Your task to perform on an android device: open chrome privacy settings Image 0: 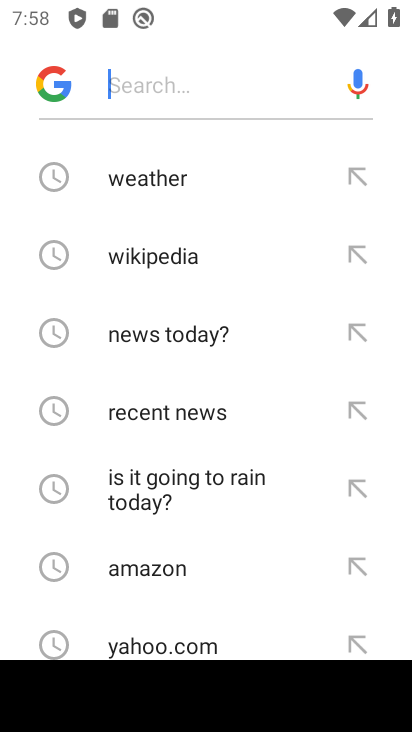
Step 0: press home button
Your task to perform on an android device: open chrome privacy settings Image 1: 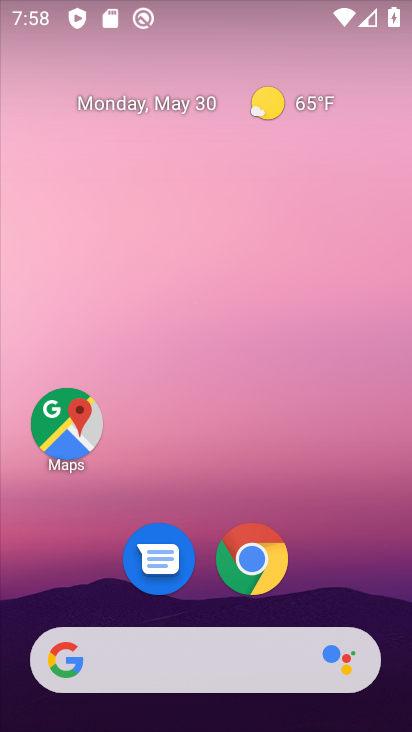
Step 1: click (254, 550)
Your task to perform on an android device: open chrome privacy settings Image 2: 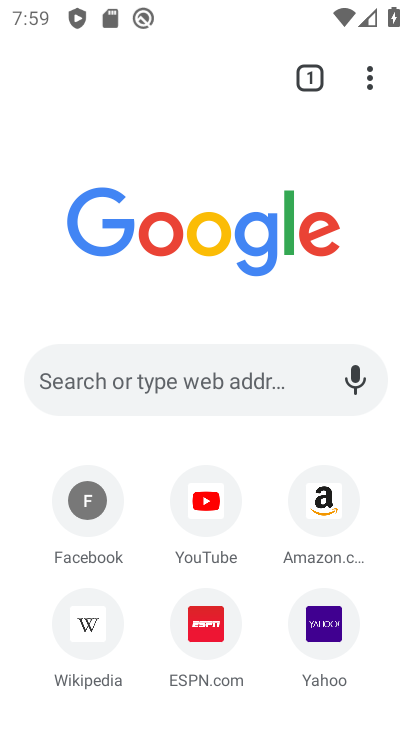
Step 2: drag from (360, 75) to (104, 627)
Your task to perform on an android device: open chrome privacy settings Image 3: 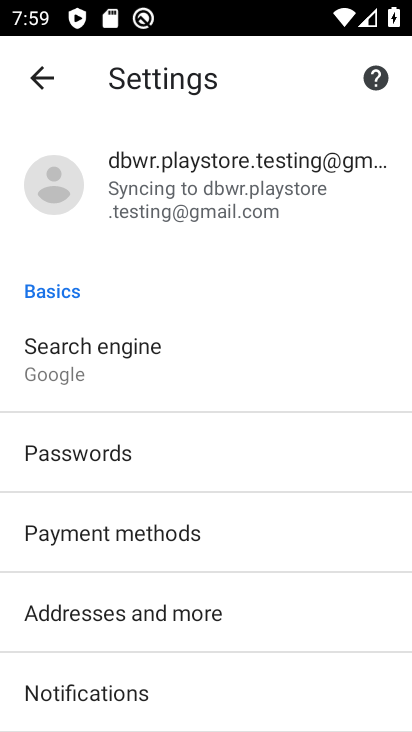
Step 3: drag from (98, 669) to (267, 118)
Your task to perform on an android device: open chrome privacy settings Image 4: 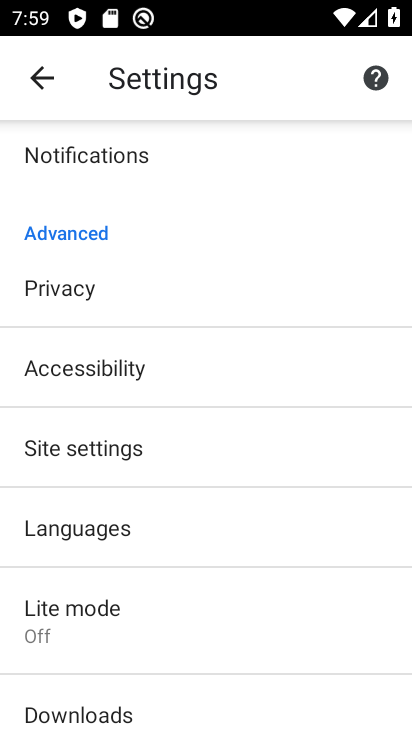
Step 4: click (70, 281)
Your task to perform on an android device: open chrome privacy settings Image 5: 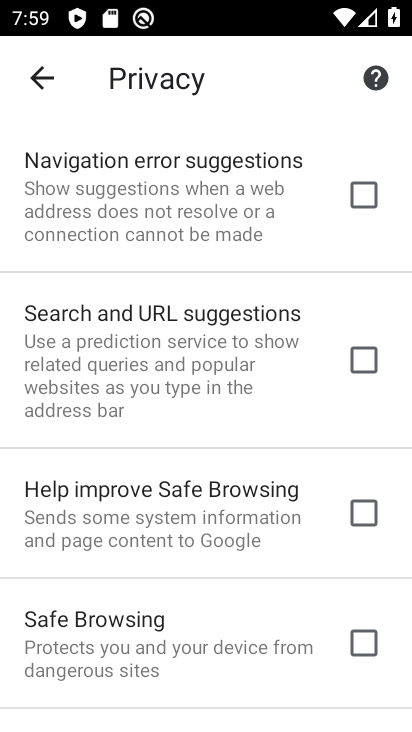
Step 5: task complete